Your task to perform on an android device: Open sound settings Image 0: 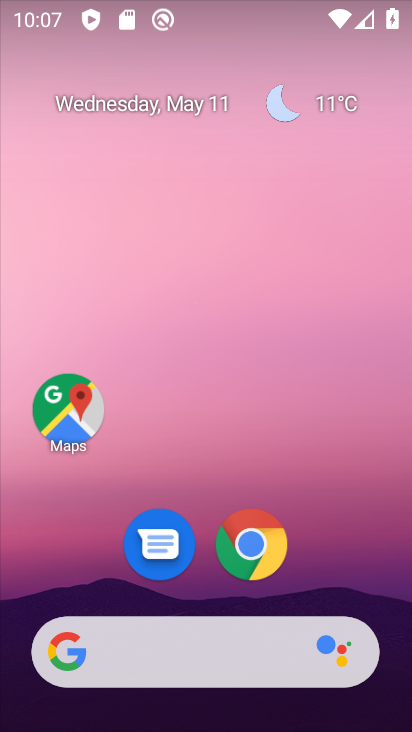
Step 0: drag from (193, 491) to (264, 69)
Your task to perform on an android device: Open sound settings Image 1: 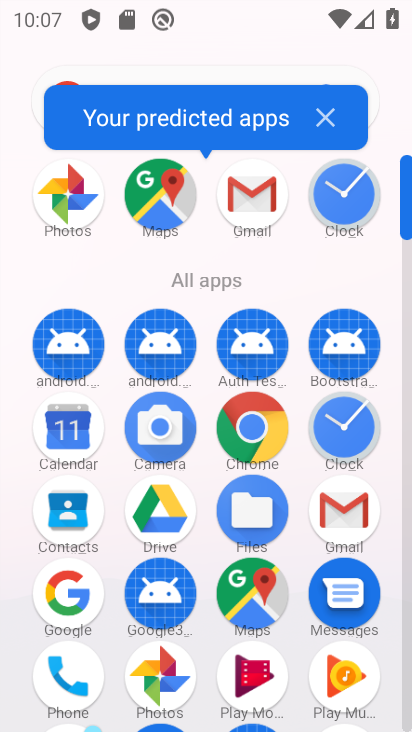
Step 1: drag from (207, 626) to (264, 161)
Your task to perform on an android device: Open sound settings Image 2: 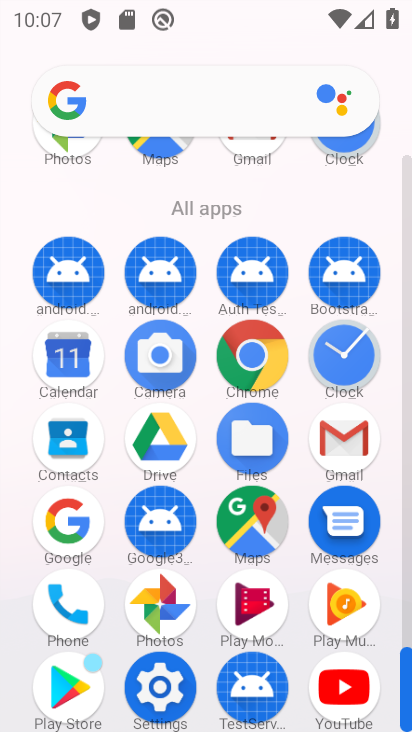
Step 2: click (156, 685)
Your task to perform on an android device: Open sound settings Image 3: 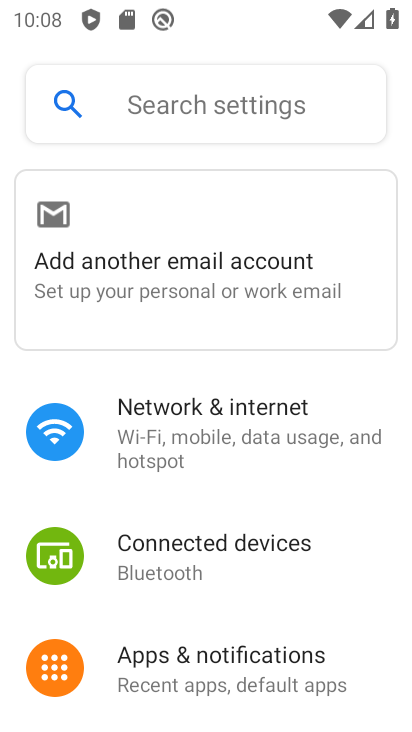
Step 3: drag from (189, 653) to (294, 58)
Your task to perform on an android device: Open sound settings Image 4: 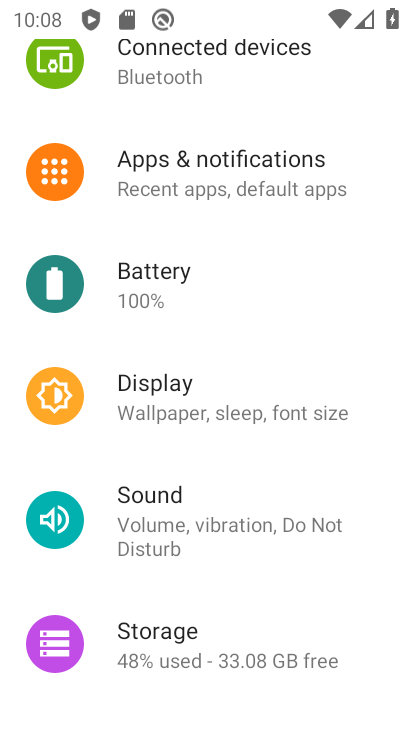
Step 4: click (160, 546)
Your task to perform on an android device: Open sound settings Image 5: 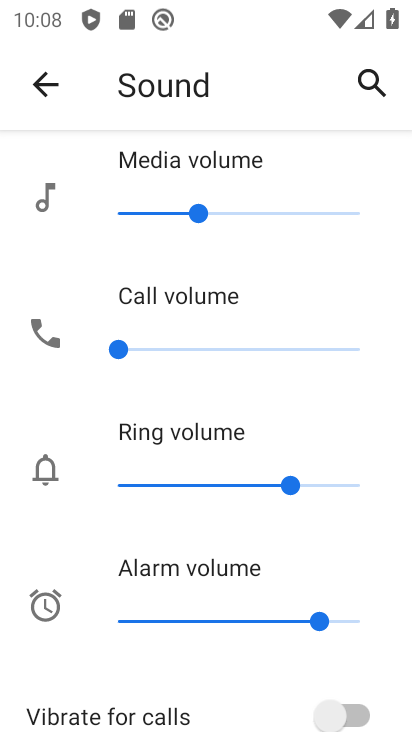
Step 5: task complete